Your task to perform on an android device: turn smart compose on in the gmail app Image 0: 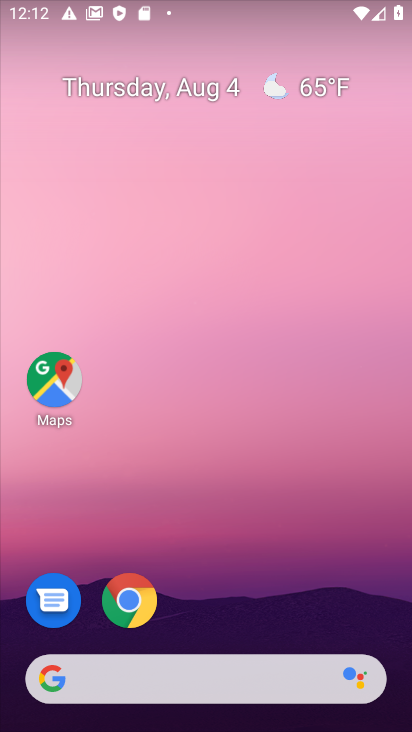
Step 0: drag from (240, 651) to (200, 37)
Your task to perform on an android device: turn smart compose on in the gmail app Image 1: 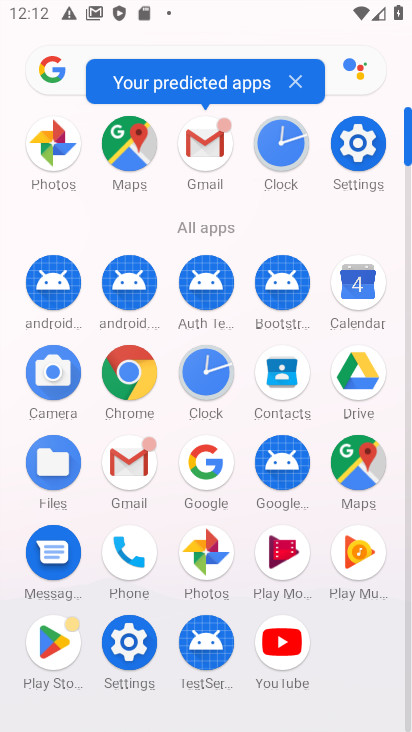
Step 1: click (139, 475)
Your task to perform on an android device: turn smart compose on in the gmail app Image 2: 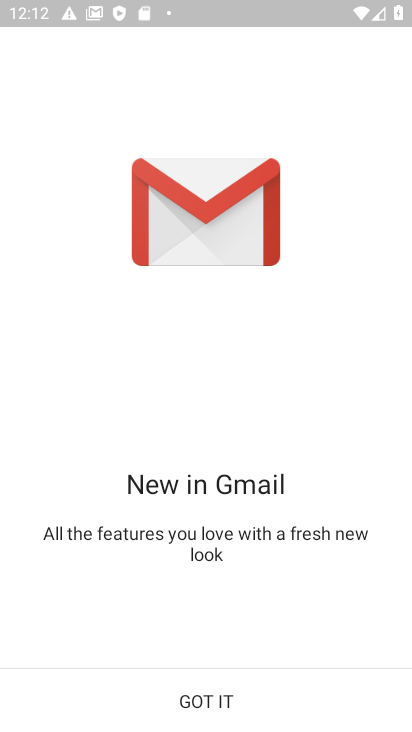
Step 2: click (255, 706)
Your task to perform on an android device: turn smart compose on in the gmail app Image 3: 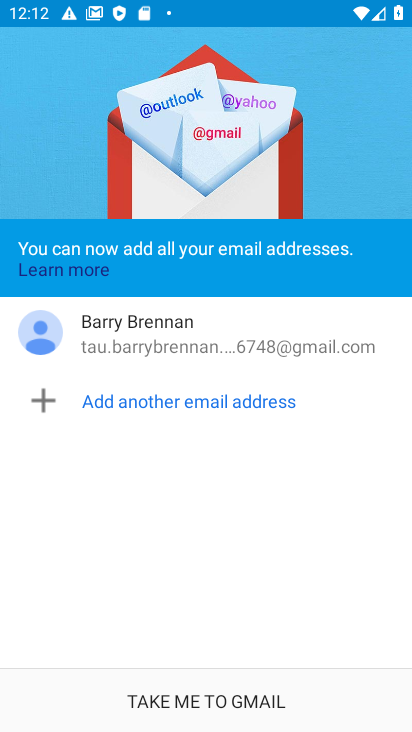
Step 3: click (255, 706)
Your task to perform on an android device: turn smart compose on in the gmail app Image 4: 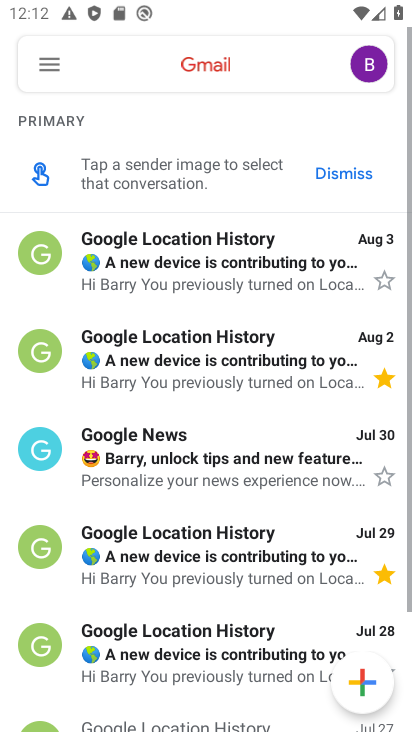
Step 4: click (34, 71)
Your task to perform on an android device: turn smart compose on in the gmail app Image 5: 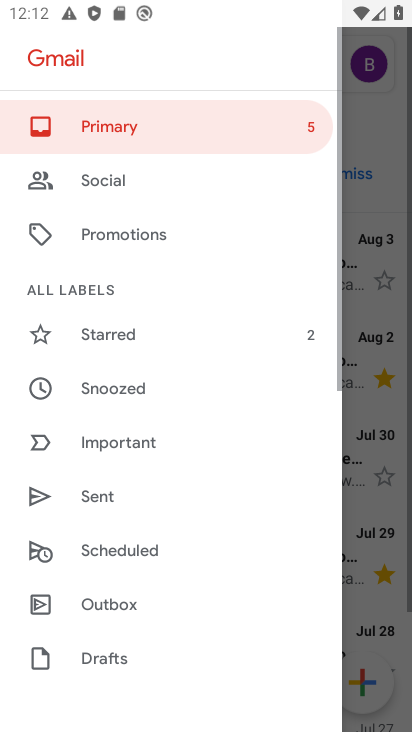
Step 5: drag from (89, 546) to (87, 9)
Your task to perform on an android device: turn smart compose on in the gmail app Image 6: 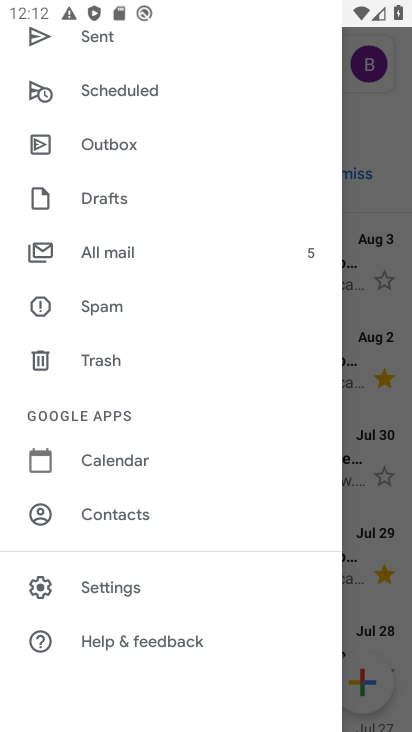
Step 6: click (111, 595)
Your task to perform on an android device: turn smart compose on in the gmail app Image 7: 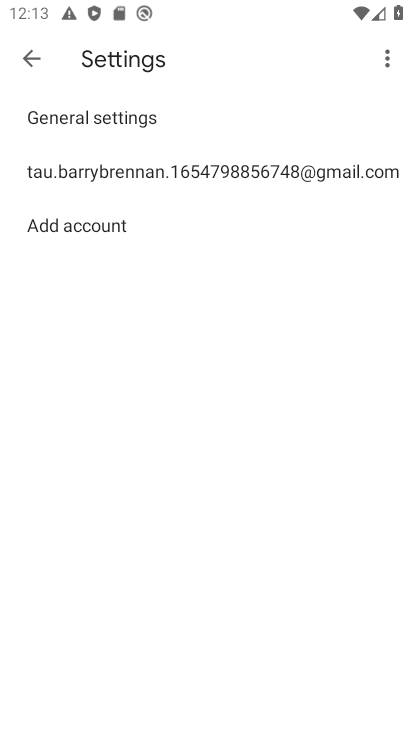
Step 7: click (73, 161)
Your task to perform on an android device: turn smart compose on in the gmail app Image 8: 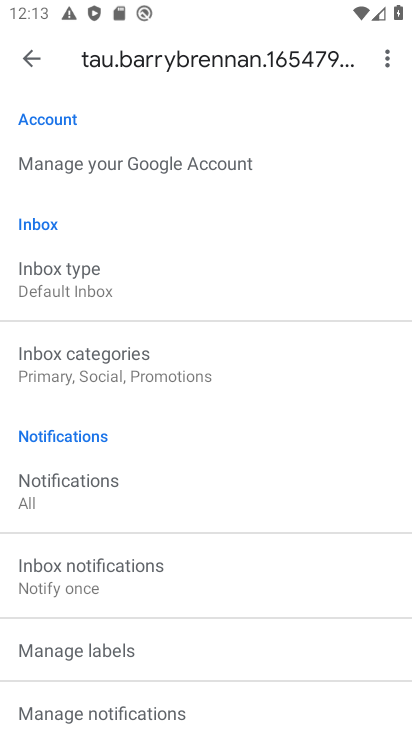
Step 8: task complete